Your task to perform on an android device: Go to CNN.com Image 0: 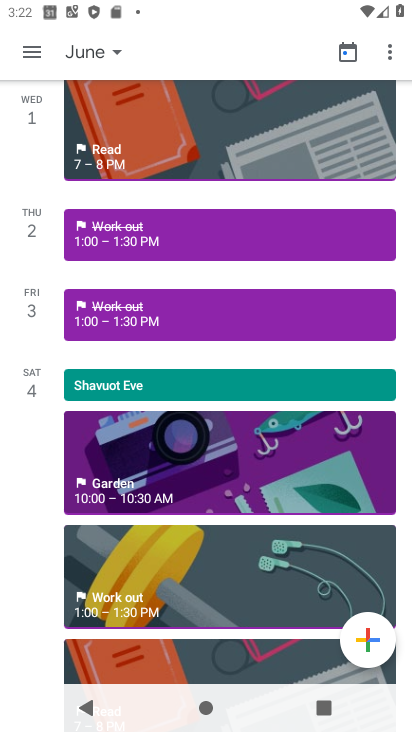
Step 0: press home button
Your task to perform on an android device: Go to CNN.com Image 1: 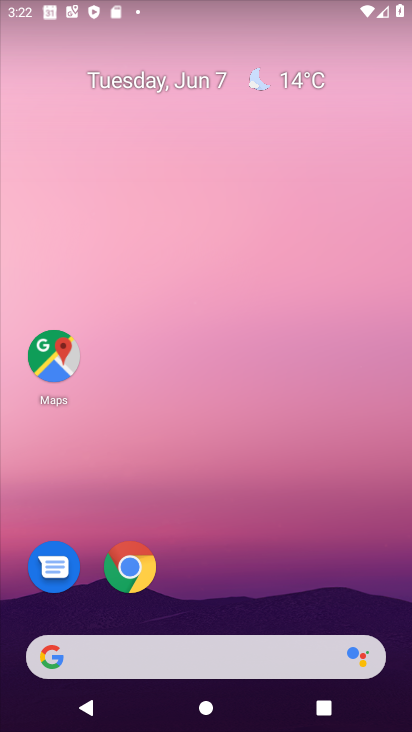
Step 1: click (130, 556)
Your task to perform on an android device: Go to CNN.com Image 2: 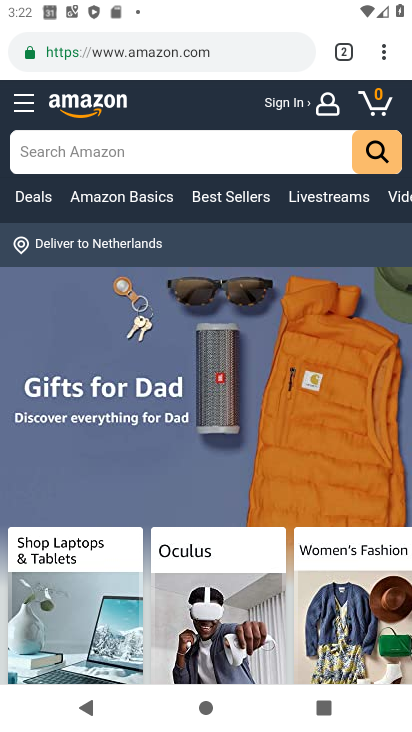
Step 2: click (340, 51)
Your task to perform on an android device: Go to CNN.com Image 3: 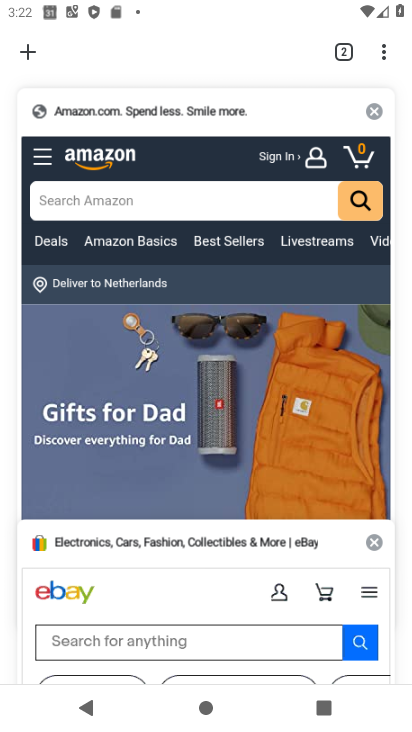
Step 3: click (37, 49)
Your task to perform on an android device: Go to CNN.com Image 4: 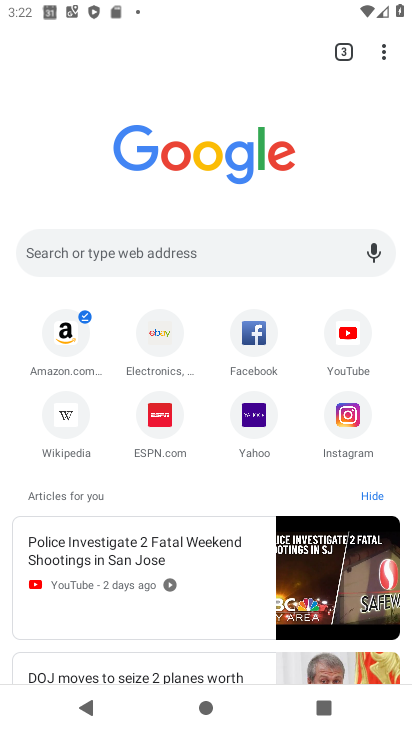
Step 4: click (177, 243)
Your task to perform on an android device: Go to CNN.com Image 5: 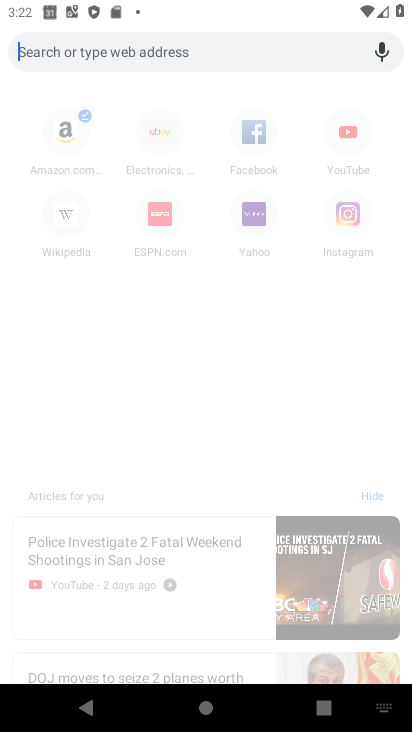
Step 5: type "CNN.com"
Your task to perform on an android device: Go to CNN.com Image 6: 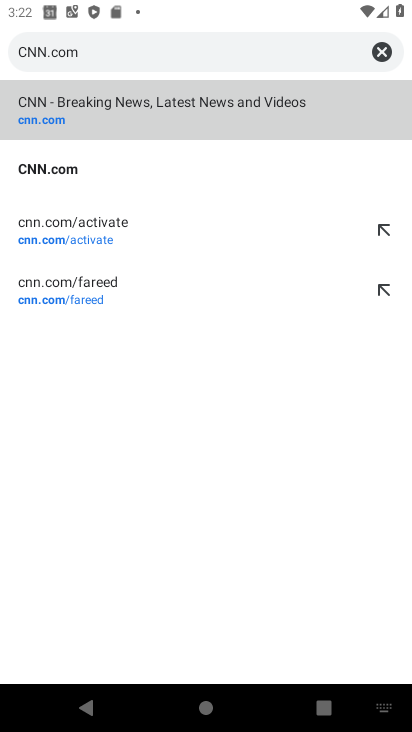
Step 6: click (185, 100)
Your task to perform on an android device: Go to CNN.com Image 7: 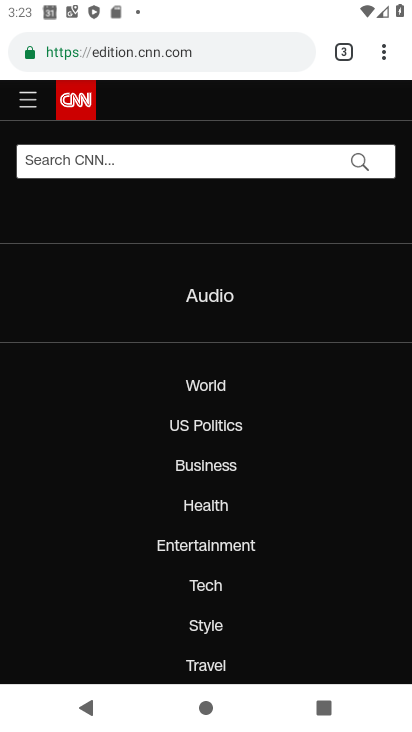
Step 7: task complete